Your task to perform on an android device: Go to internet settings Image 0: 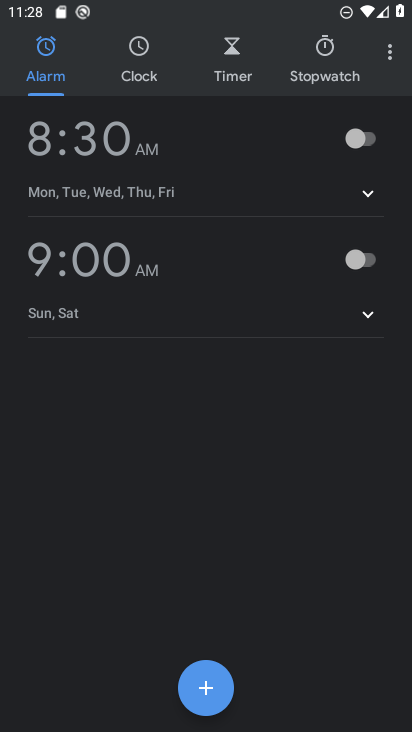
Step 0: press home button
Your task to perform on an android device: Go to internet settings Image 1: 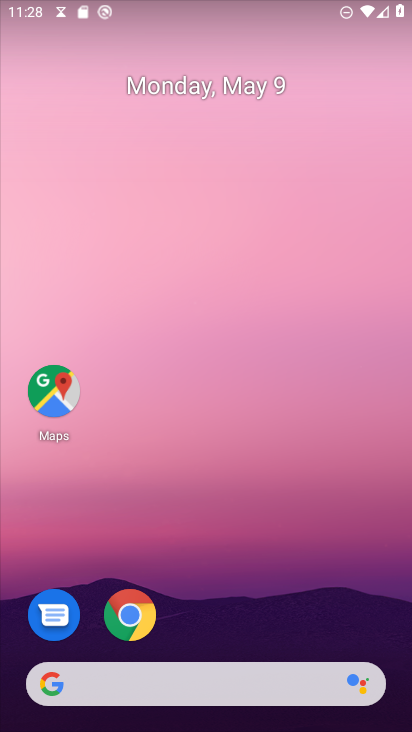
Step 1: drag from (214, 712) to (197, 110)
Your task to perform on an android device: Go to internet settings Image 2: 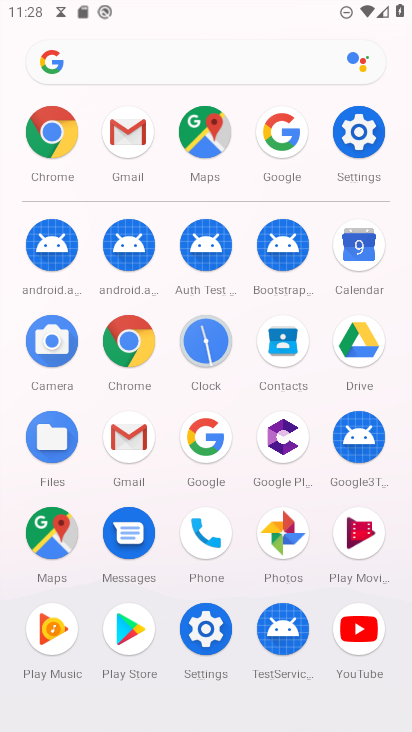
Step 2: click (356, 136)
Your task to perform on an android device: Go to internet settings Image 3: 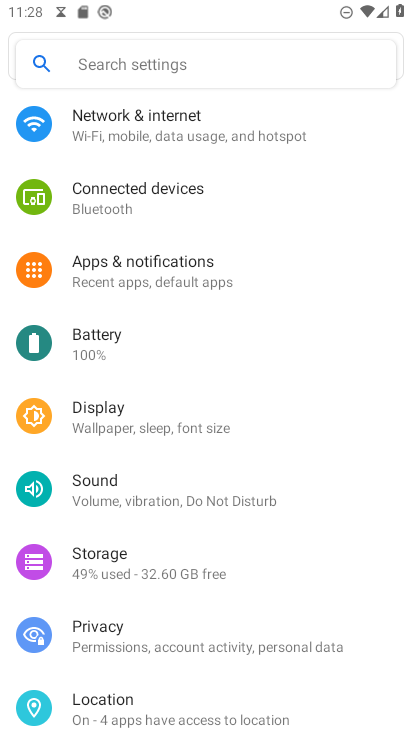
Step 3: click (138, 122)
Your task to perform on an android device: Go to internet settings Image 4: 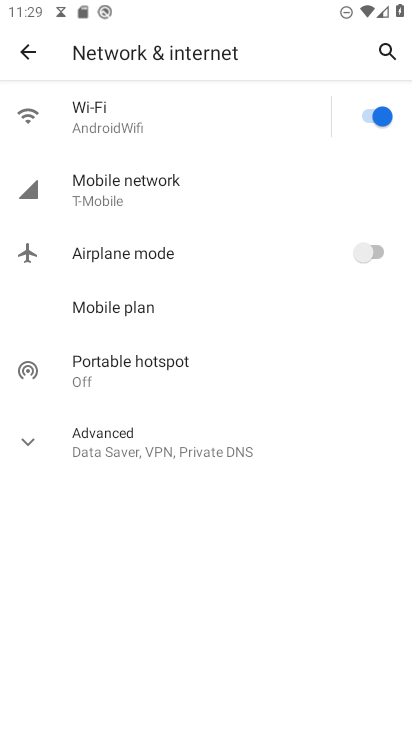
Step 4: click (108, 184)
Your task to perform on an android device: Go to internet settings Image 5: 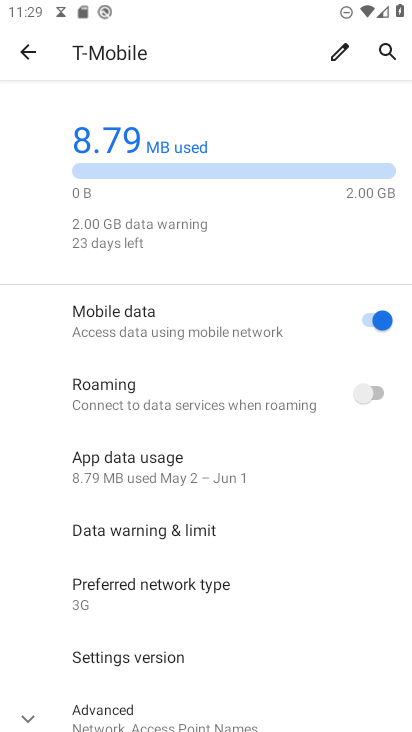
Step 5: task complete